Your task to perform on an android device: find snoozed emails in the gmail app Image 0: 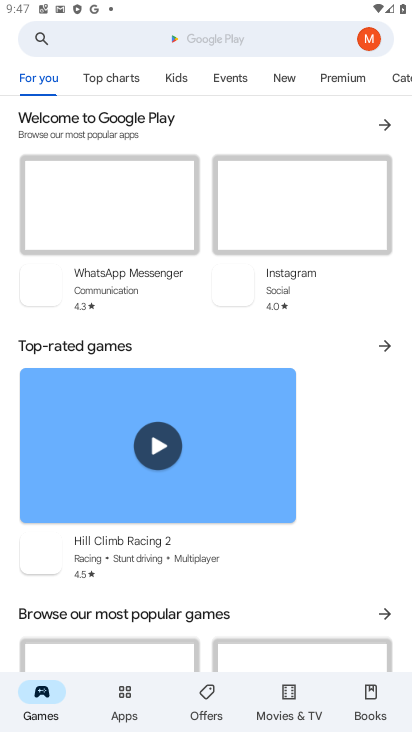
Step 0: press home button
Your task to perform on an android device: find snoozed emails in the gmail app Image 1: 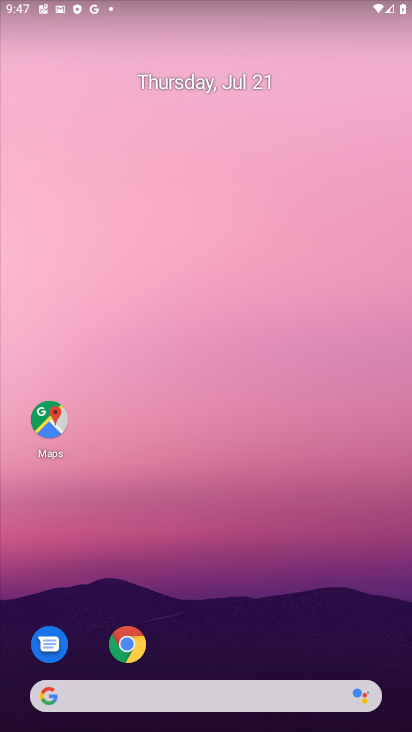
Step 1: drag from (205, 639) to (270, 9)
Your task to perform on an android device: find snoozed emails in the gmail app Image 2: 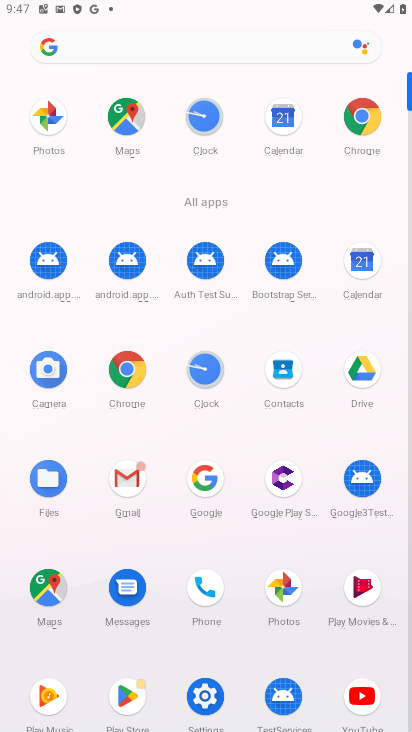
Step 2: click (127, 475)
Your task to perform on an android device: find snoozed emails in the gmail app Image 3: 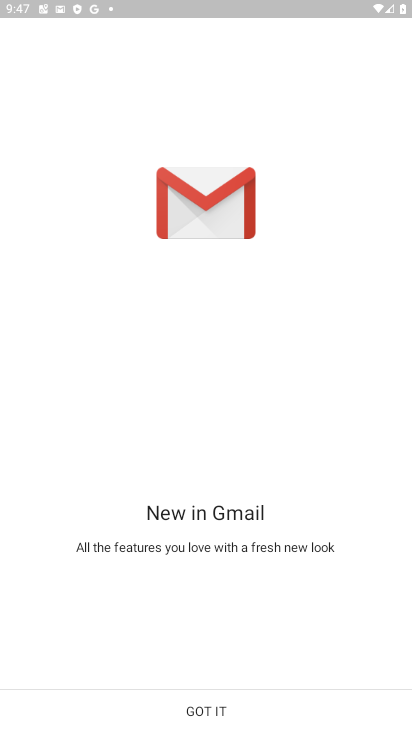
Step 3: click (209, 710)
Your task to perform on an android device: find snoozed emails in the gmail app Image 4: 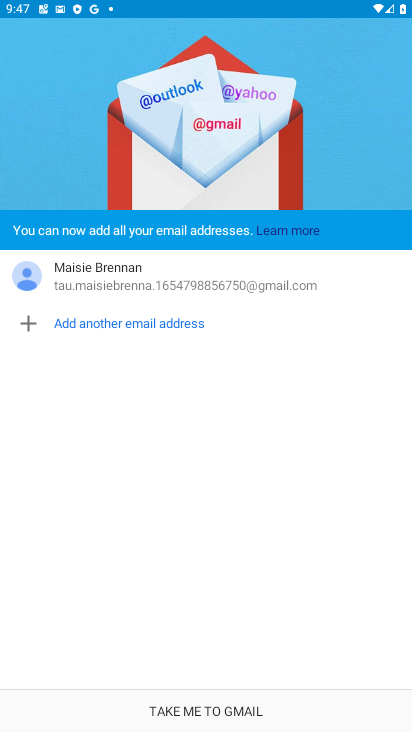
Step 4: click (201, 710)
Your task to perform on an android device: find snoozed emails in the gmail app Image 5: 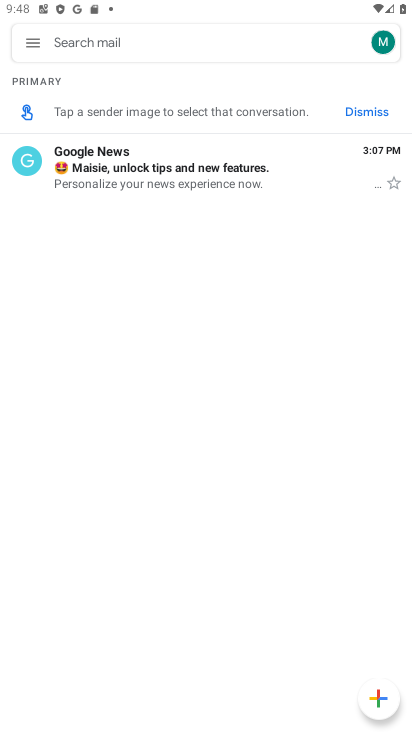
Step 5: click (38, 36)
Your task to perform on an android device: find snoozed emails in the gmail app Image 6: 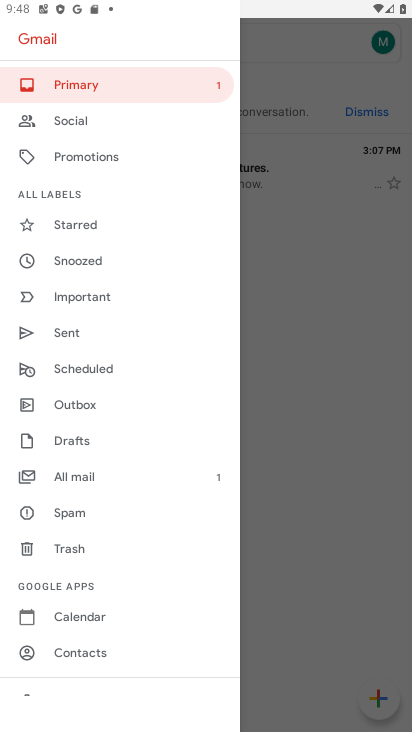
Step 6: click (112, 256)
Your task to perform on an android device: find snoozed emails in the gmail app Image 7: 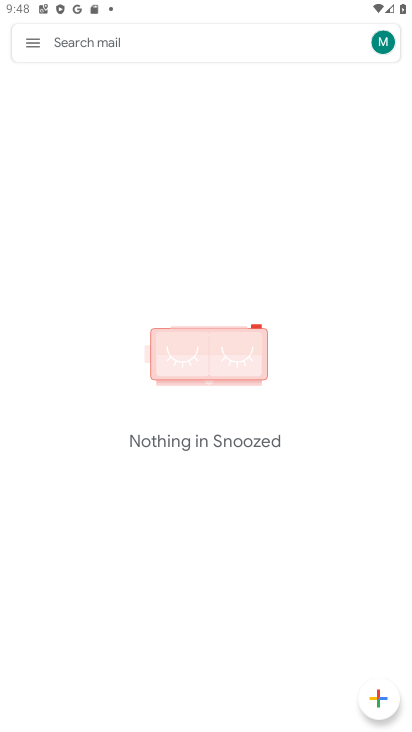
Step 7: task complete